Your task to perform on an android device: Clear the cart on bestbuy.com. Add "duracell triple a" to the cart on bestbuy.com, then select checkout. Image 0: 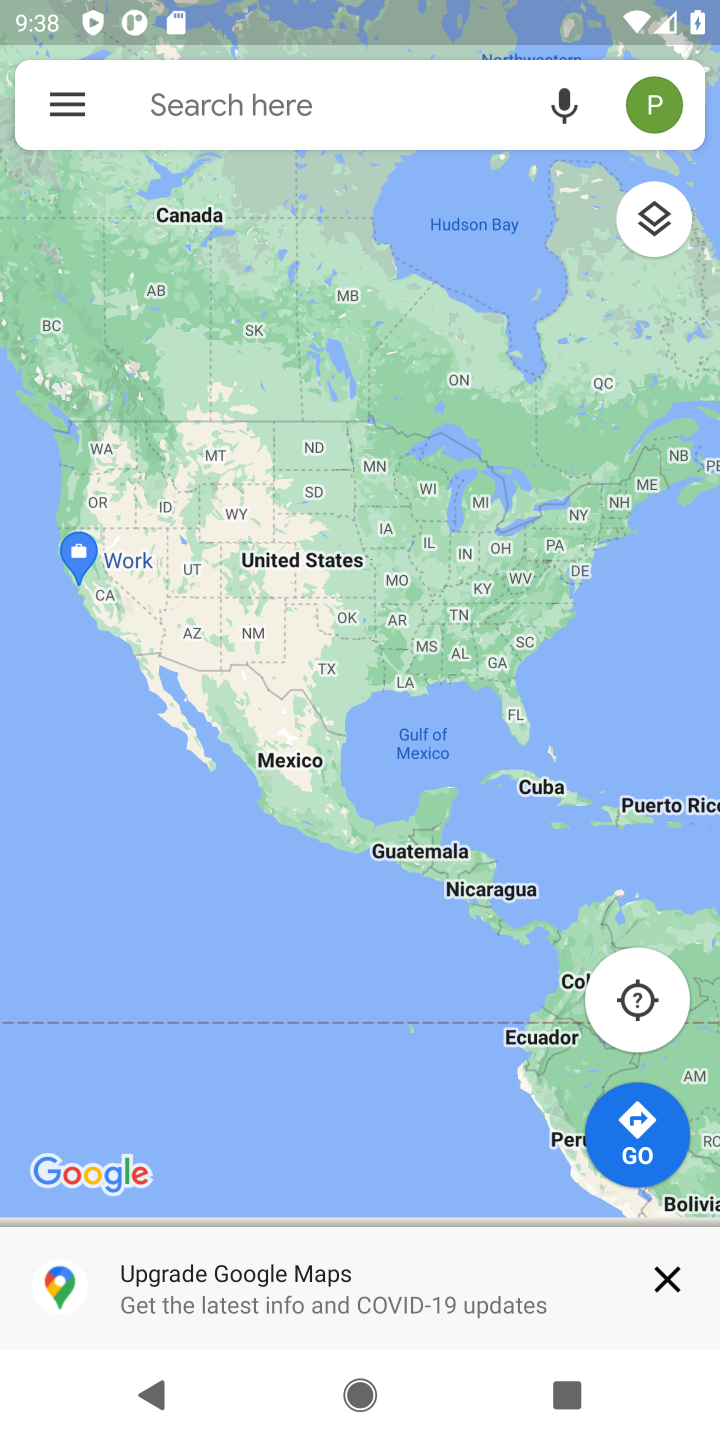
Step 0: press home button
Your task to perform on an android device: Clear the cart on bestbuy.com. Add "duracell triple a" to the cart on bestbuy.com, then select checkout. Image 1: 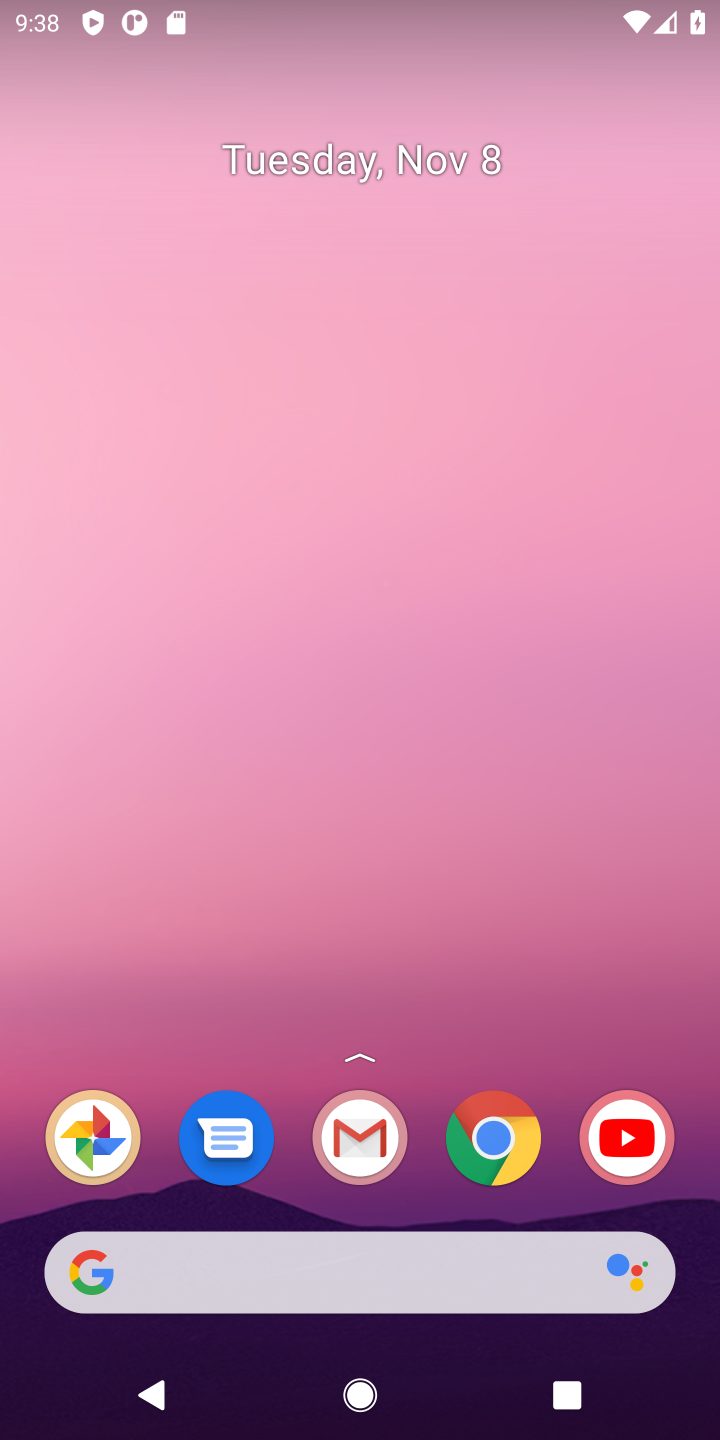
Step 1: click (483, 1134)
Your task to perform on an android device: Clear the cart on bestbuy.com. Add "duracell triple a" to the cart on bestbuy.com, then select checkout. Image 2: 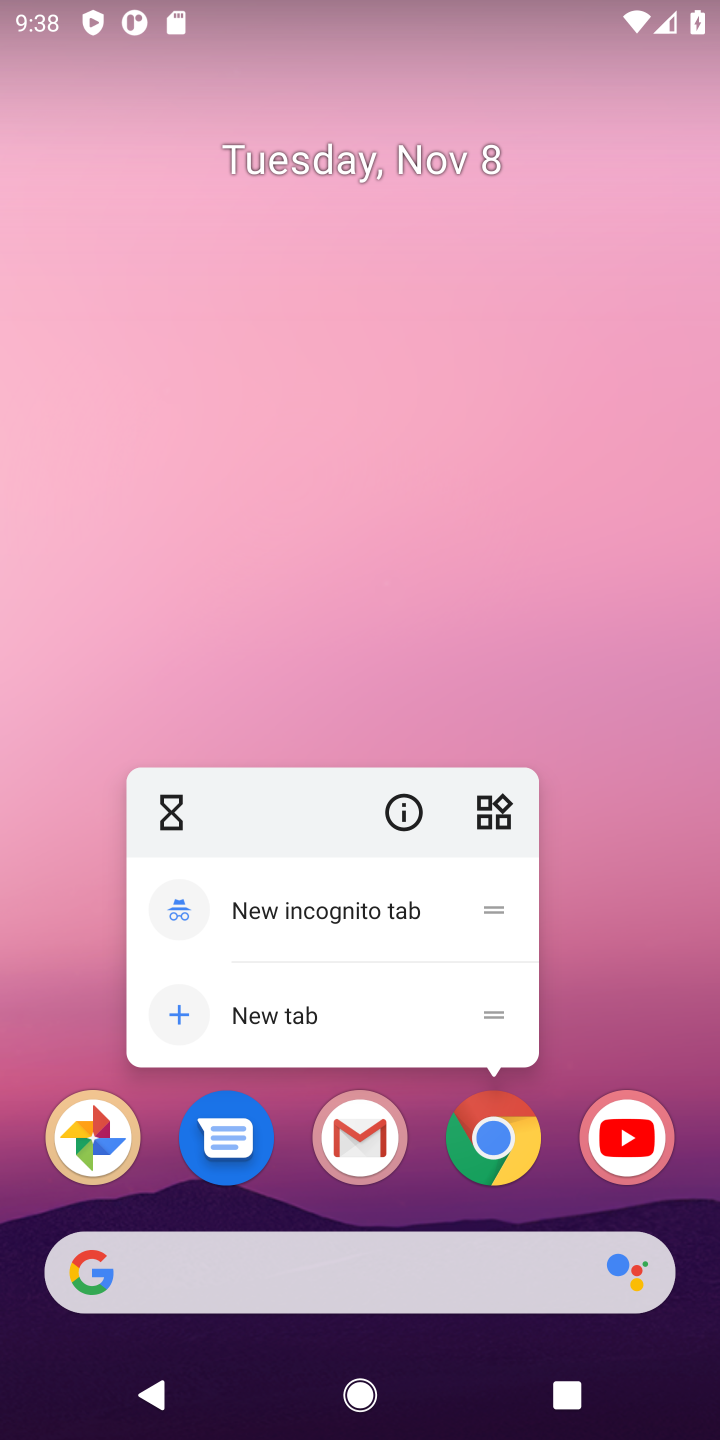
Step 2: click (485, 1140)
Your task to perform on an android device: Clear the cart on bestbuy.com. Add "duracell triple a" to the cart on bestbuy.com, then select checkout. Image 3: 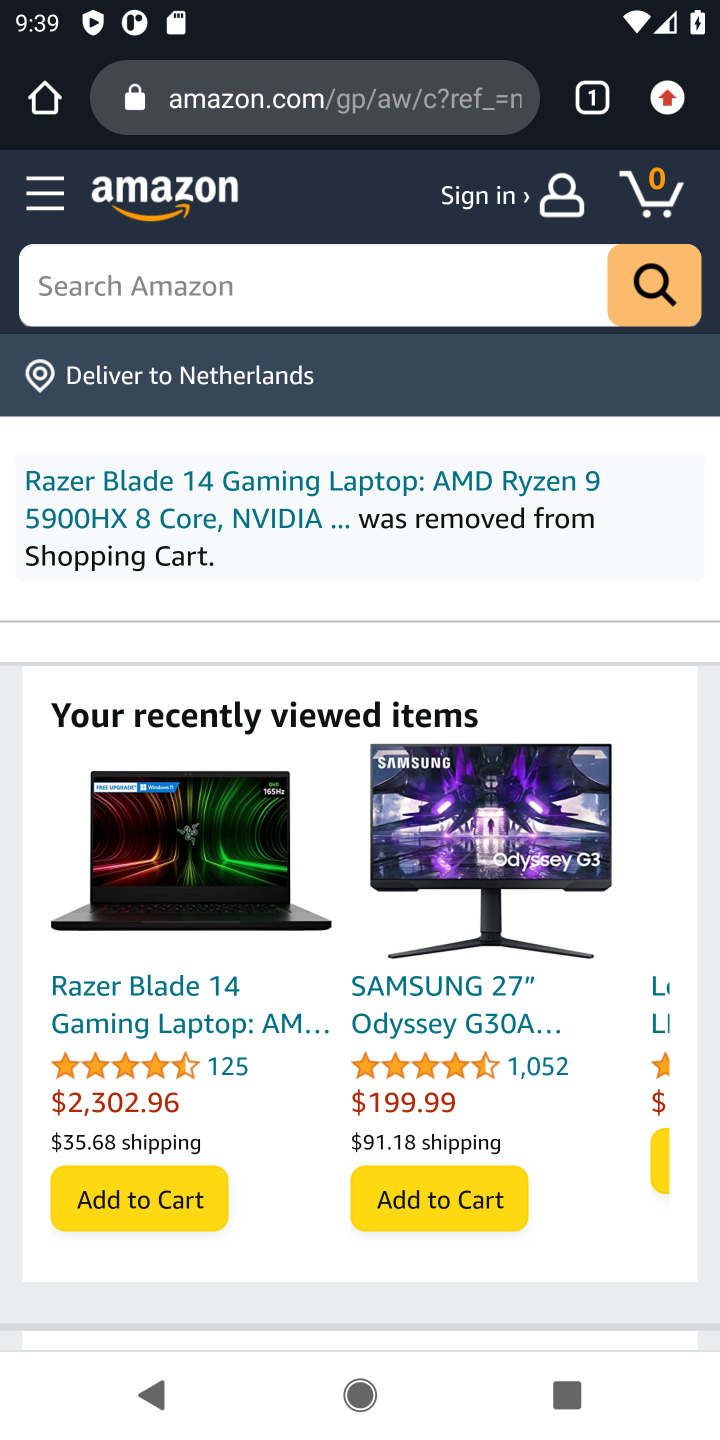
Step 3: click (317, 88)
Your task to perform on an android device: Clear the cart on bestbuy.com. Add "duracell triple a" to the cart on bestbuy.com, then select checkout. Image 4: 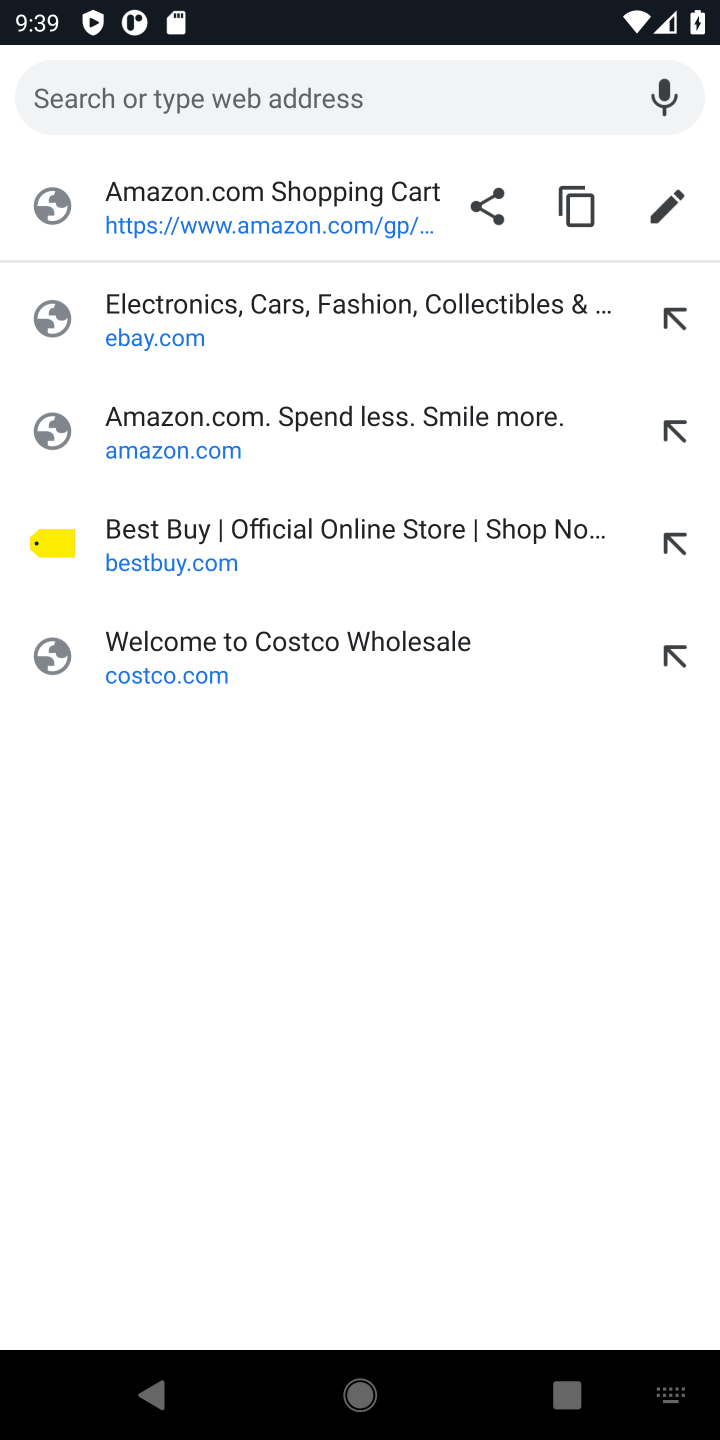
Step 4: click (162, 555)
Your task to perform on an android device: Clear the cart on bestbuy.com. Add "duracell triple a" to the cart on bestbuy.com, then select checkout. Image 5: 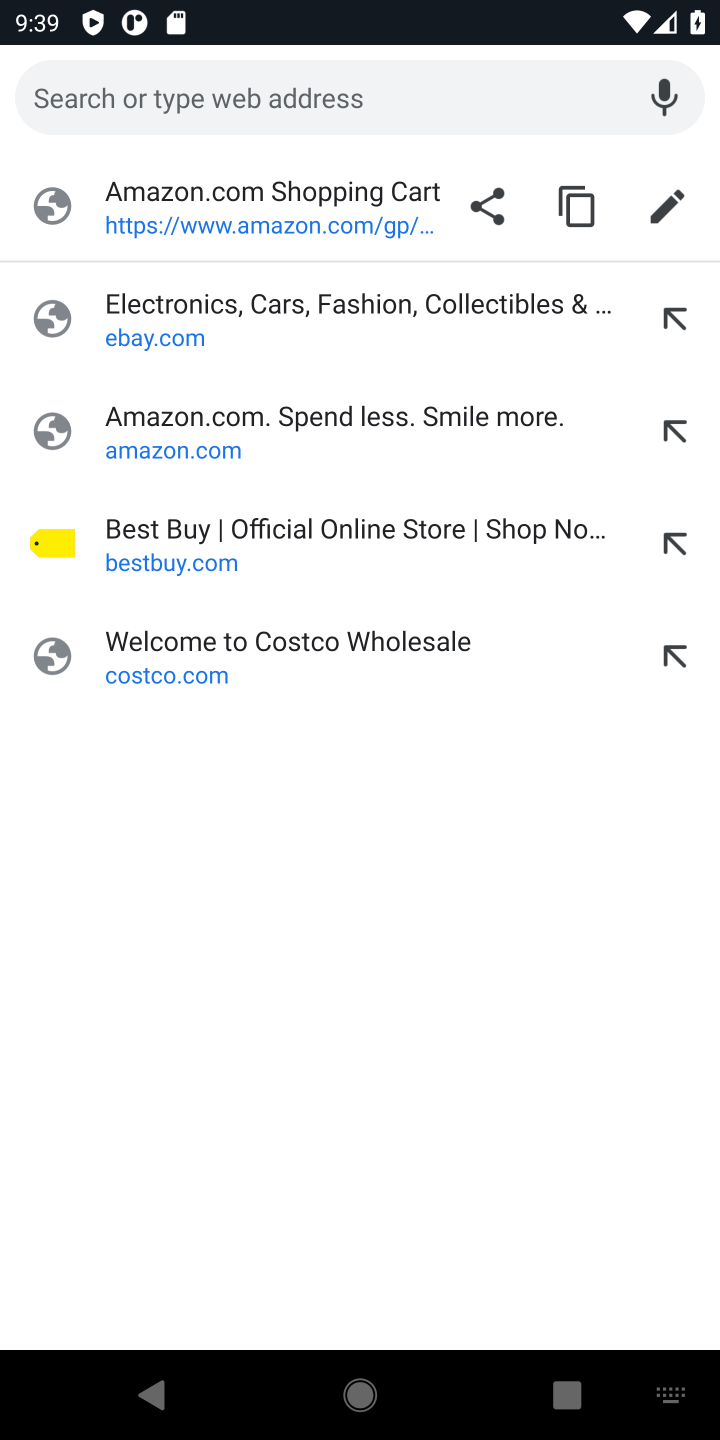
Step 5: click (162, 555)
Your task to perform on an android device: Clear the cart on bestbuy.com. Add "duracell triple a" to the cart on bestbuy.com, then select checkout. Image 6: 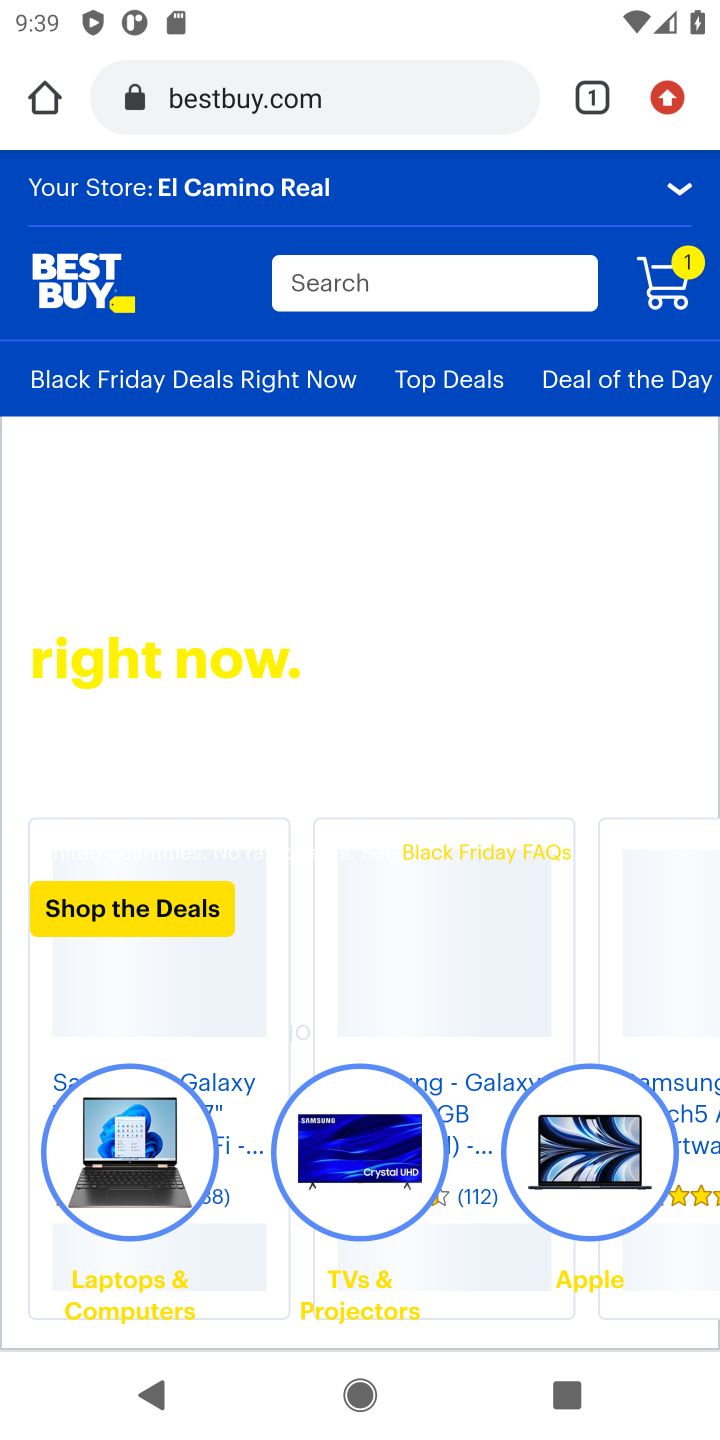
Step 6: click (440, 287)
Your task to perform on an android device: Clear the cart on bestbuy.com. Add "duracell triple a" to the cart on bestbuy.com, then select checkout. Image 7: 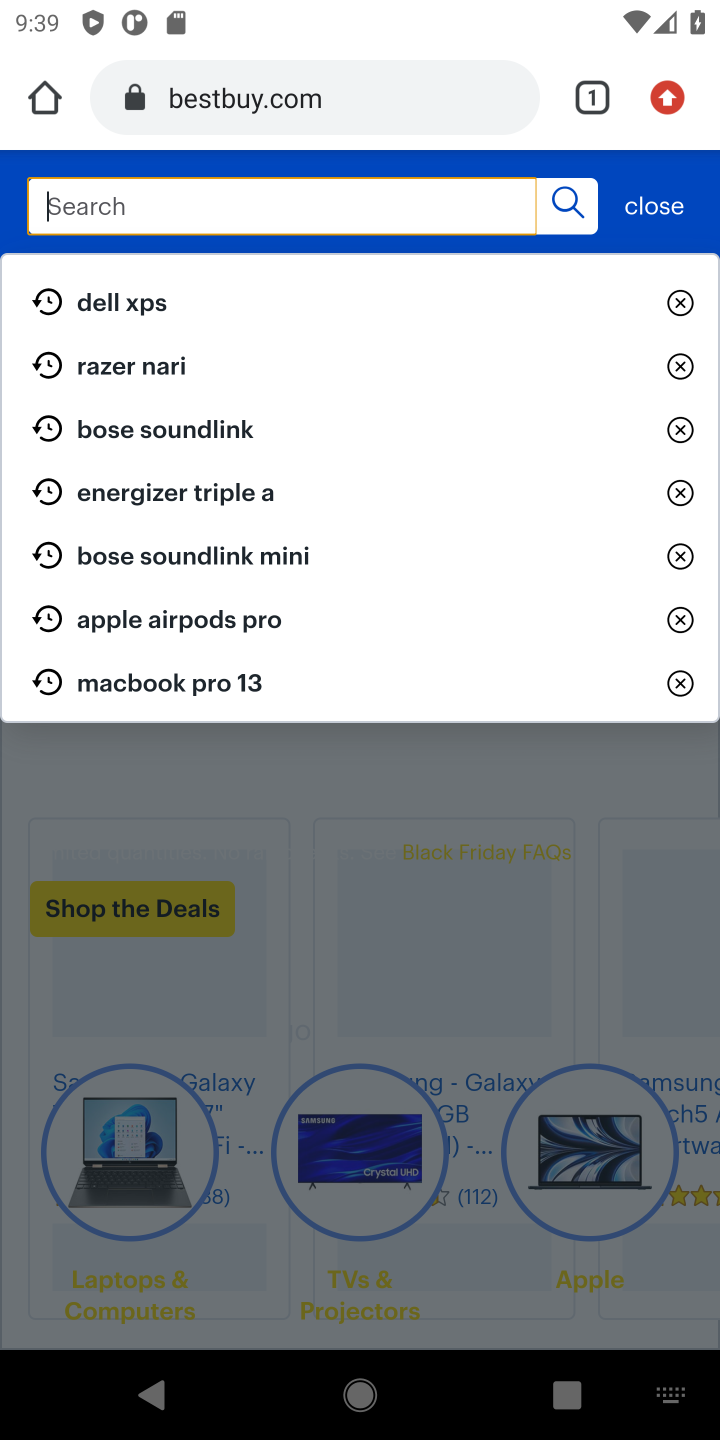
Step 7: type "duracell triple a"
Your task to perform on an android device: Clear the cart on bestbuy.com. Add "duracell triple a" to the cart on bestbuy.com, then select checkout. Image 8: 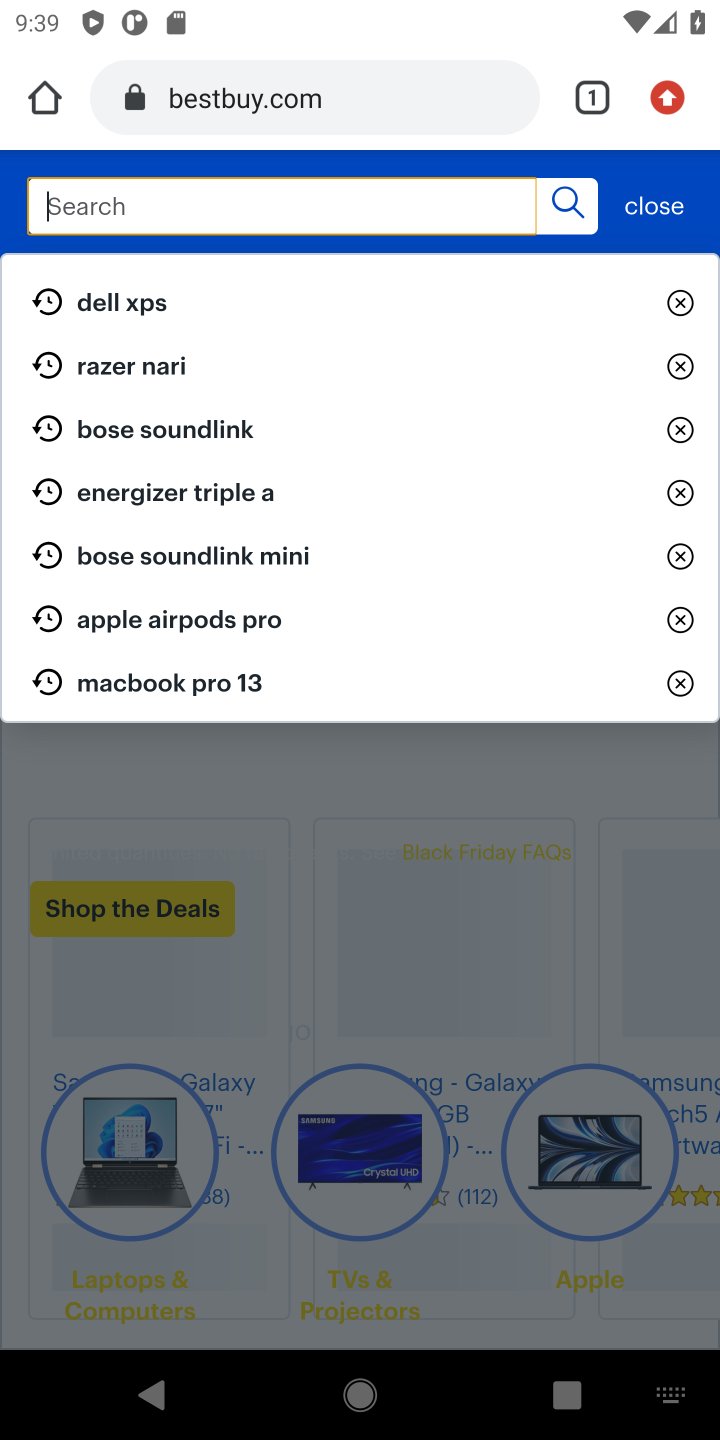
Step 8: press enter
Your task to perform on an android device: Clear the cart on bestbuy.com. Add "duracell triple a" to the cart on bestbuy.com, then select checkout. Image 9: 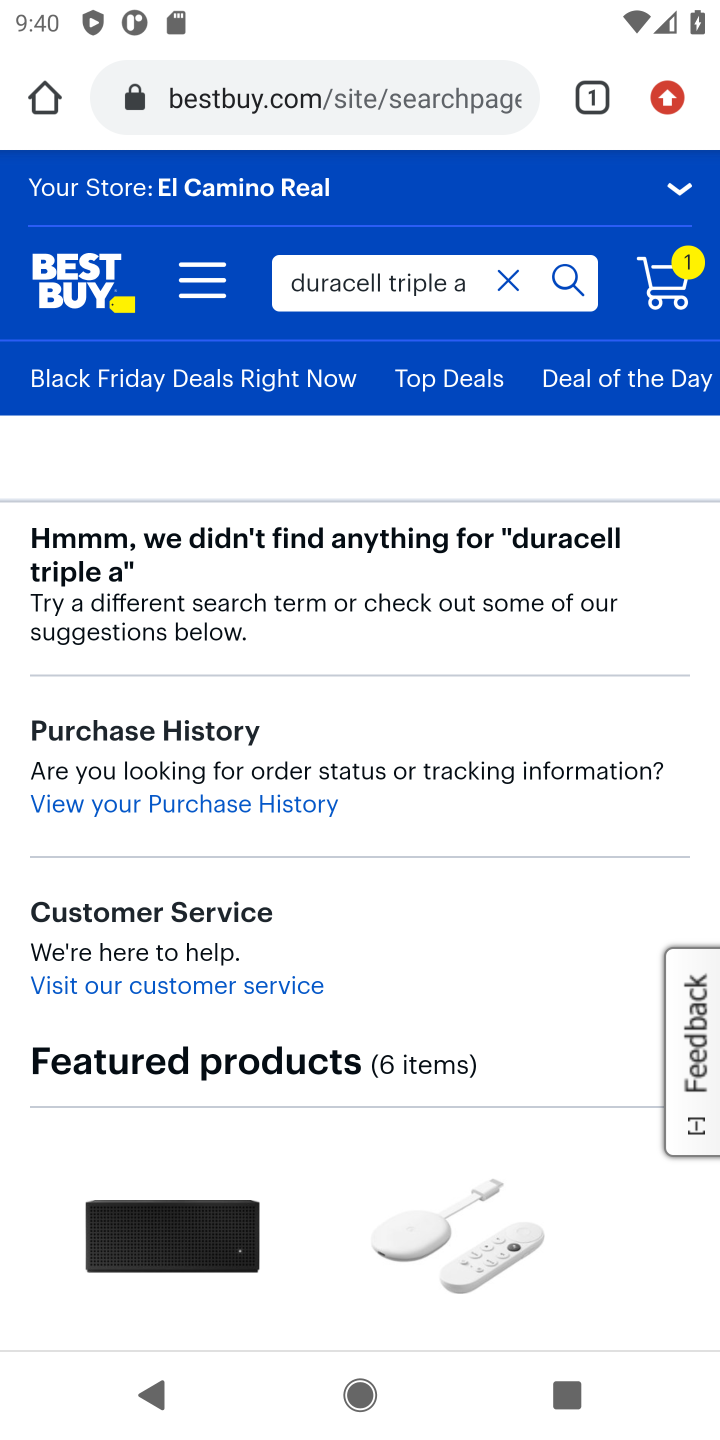
Step 9: drag from (326, 1150) to (415, 1270)
Your task to perform on an android device: Clear the cart on bestbuy.com. Add "duracell triple a" to the cart on bestbuy.com, then select checkout. Image 10: 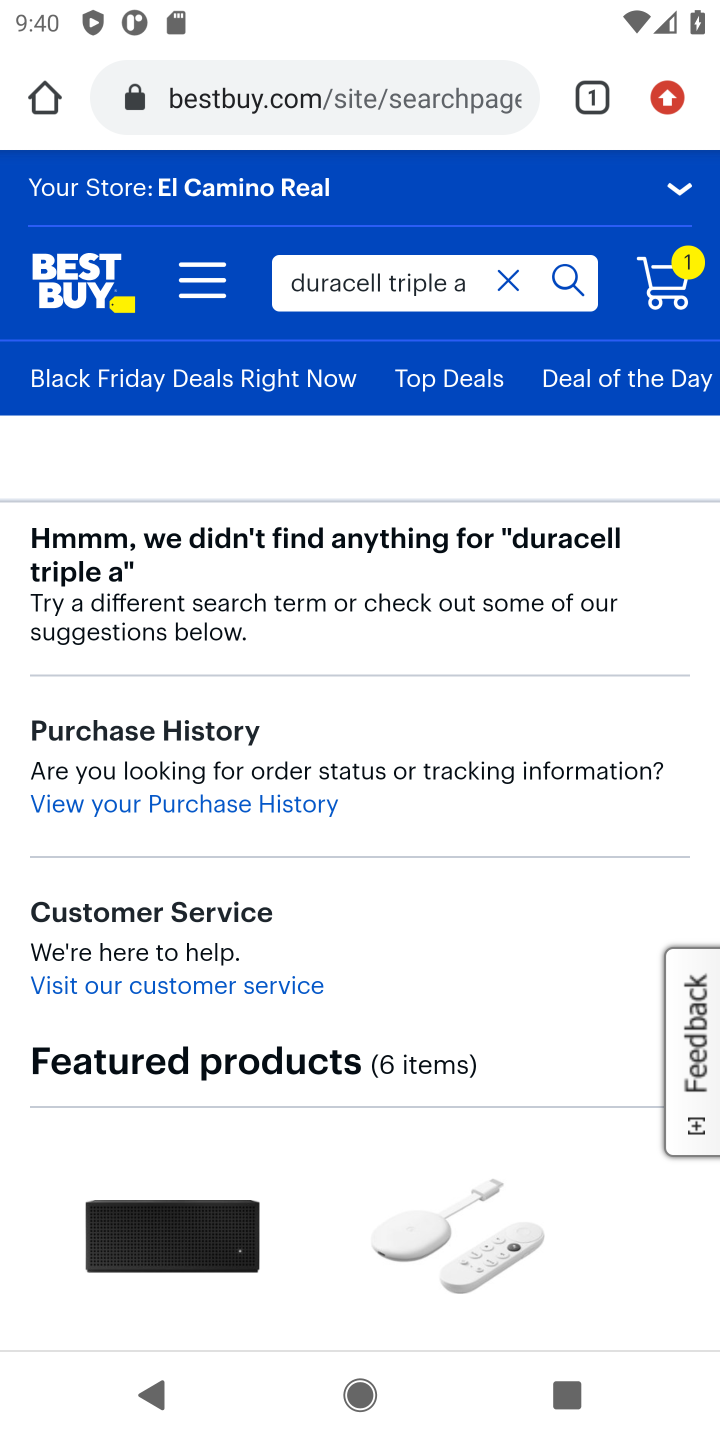
Step 10: click (558, 273)
Your task to perform on an android device: Clear the cart on bestbuy.com. Add "duracell triple a" to the cart on bestbuy.com, then select checkout. Image 11: 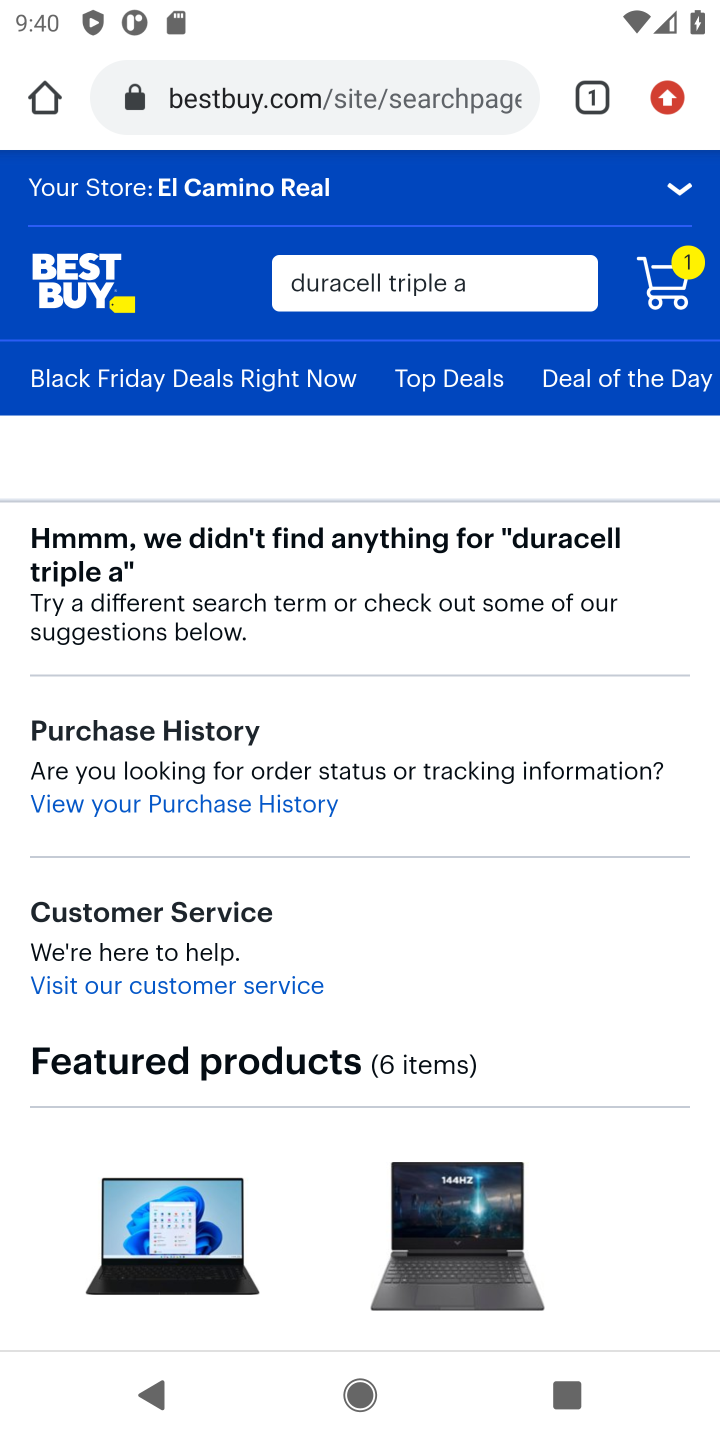
Step 11: task complete